Your task to perform on an android device: toggle show notifications on the lock screen Image 0: 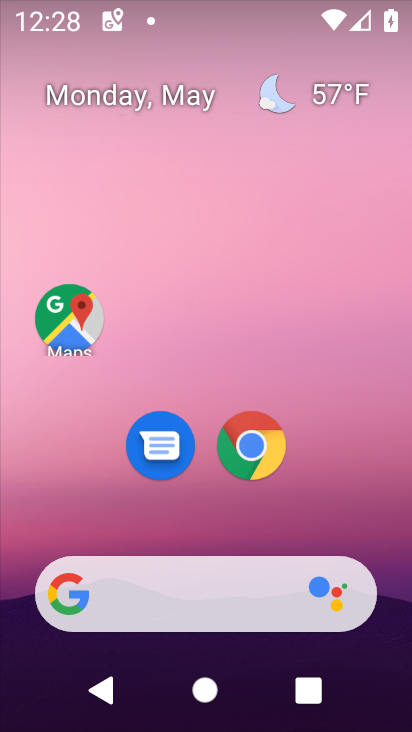
Step 0: drag from (342, 498) to (289, 141)
Your task to perform on an android device: toggle show notifications on the lock screen Image 1: 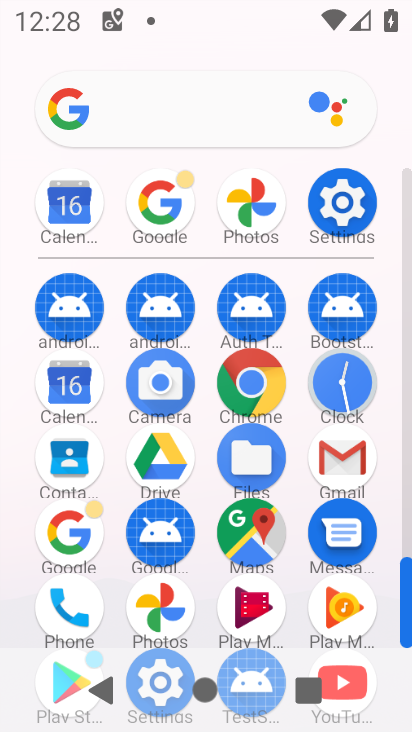
Step 1: click (341, 221)
Your task to perform on an android device: toggle show notifications on the lock screen Image 2: 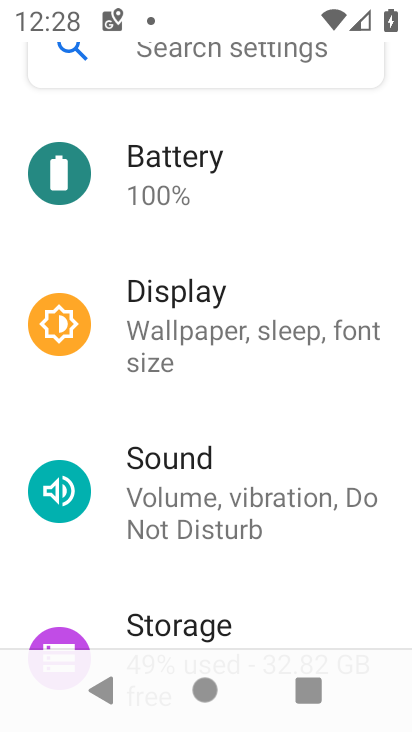
Step 2: drag from (274, 410) to (252, 159)
Your task to perform on an android device: toggle show notifications on the lock screen Image 3: 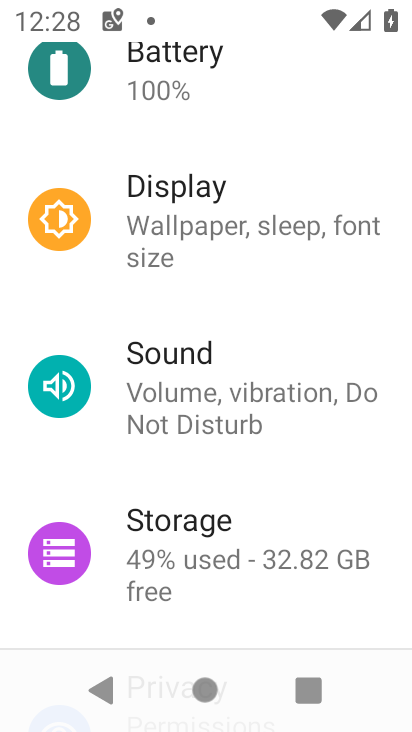
Step 3: drag from (289, 483) to (257, 163)
Your task to perform on an android device: toggle show notifications on the lock screen Image 4: 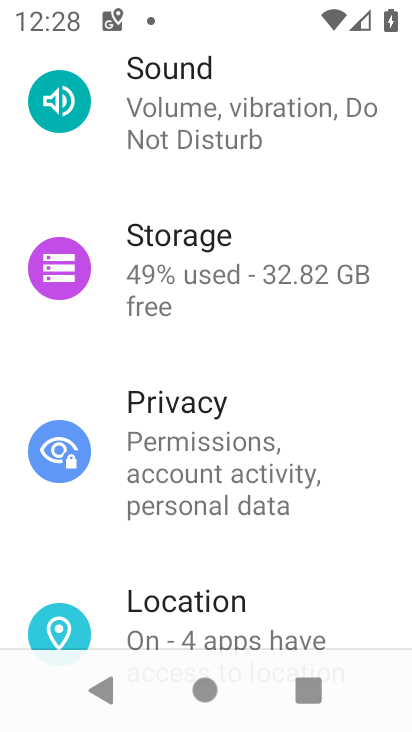
Step 4: drag from (271, 108) to (307, 396)
Your task to perform on an android device: toggle show notifications on the lock screen Image 5: 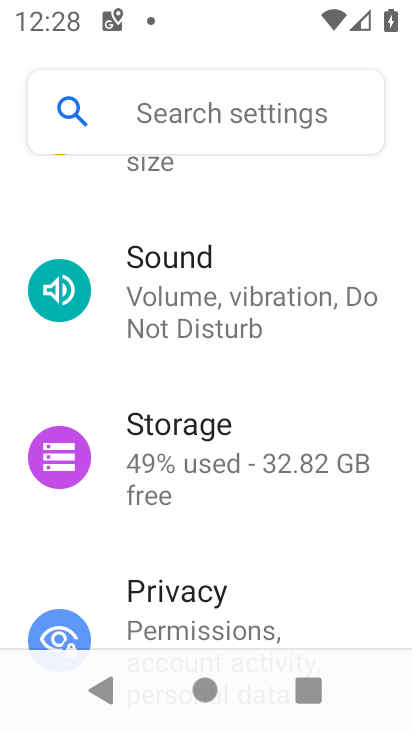
Step 5: drag from (332, 227) to (334, 447)
Your task to perform on an android device: toggle show notifications on the lock screen Image 6: 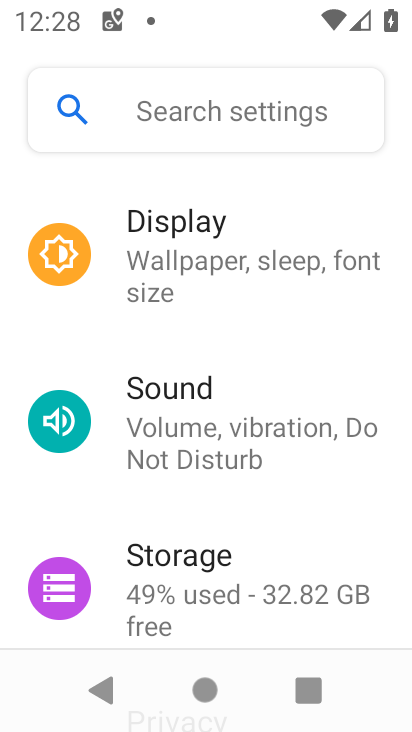
Step 6: drag from (262, 238) to (291, 481)
Your task to perform on an android device: toggle show notifications on the lock screen Image 7: 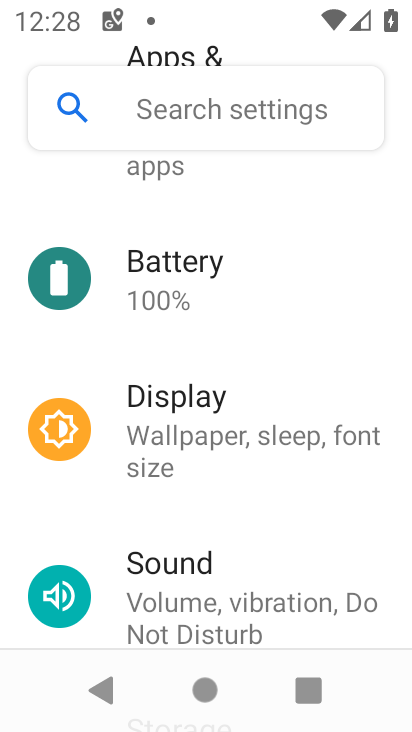
Step 7: click (170, 430)
Your task to perform on an android device: toggle show notifications on the lock screen Image 8: 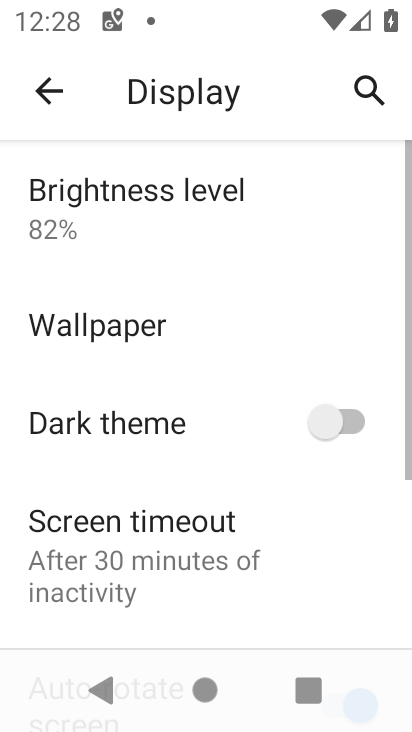
Step 8: drag from (164, 474) to (181, 180)
Your task to perform on an android device: toggle show notifications on the lock screen Image 9: 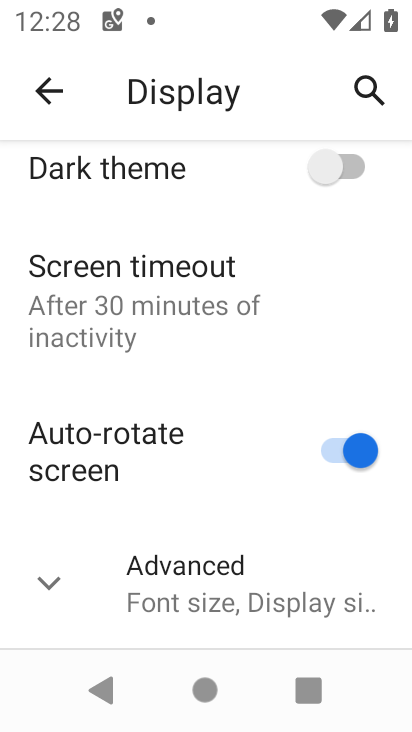
Step 9: drag from (209, 467) to (219, 163)
Your task to perform on an android device: toggle show notifications on the lock screen Image 10: 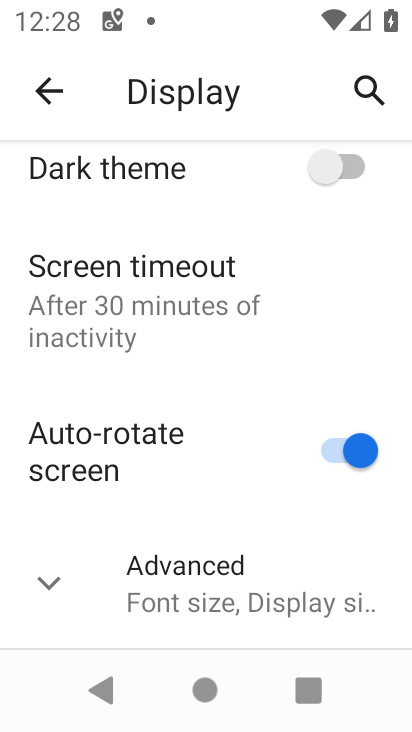
Step 10: click (214, 597)
Your task to perform on an android device: toggle show notifications on the lock screen Image 11: 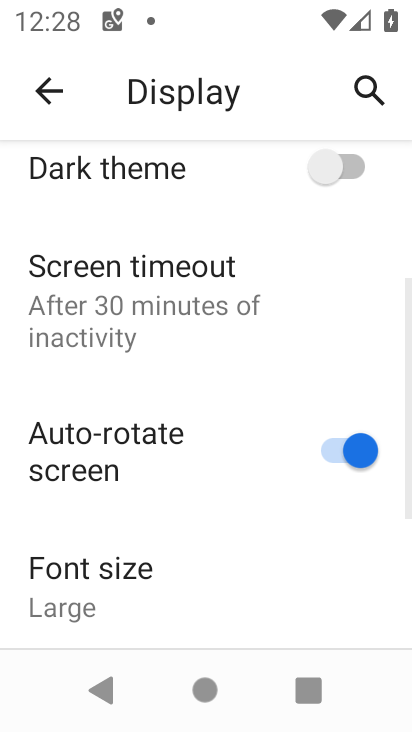
Step 11: drag from (206, 598) to (223, 328)
Your task to perform on an android device: toggle show notifications on the lock screen Image 12: 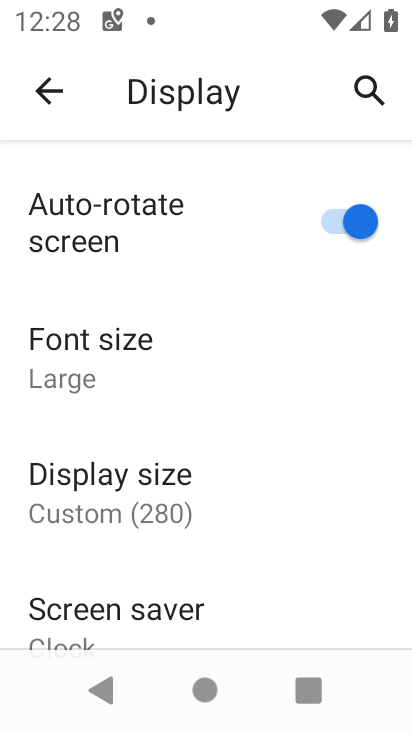
Step 12: drag from (227, 553) to (209, 251)
Your task to perform on an android device: toggle show notifications on the lock screen Image 13: 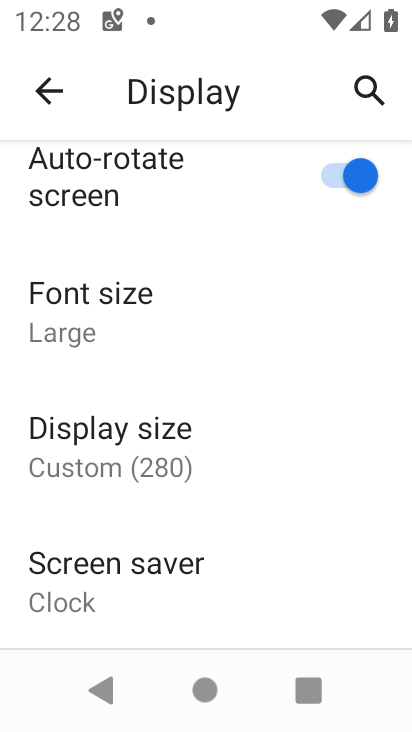
Step 13: drag from (193, 269) to (248, 585)
Your task to perform on an android device: toggle show notifications on the lock screen Image 14: 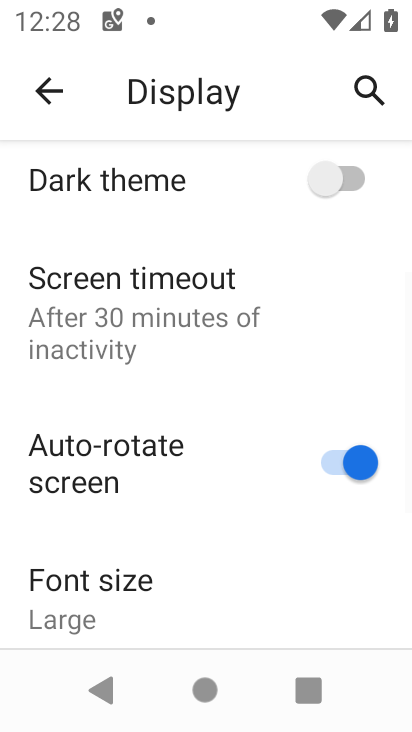
Step 14: drag from (241, 210) to (193, 488)
Your task to perform on an android device: toggle show notifications on the lock screen Image 15: 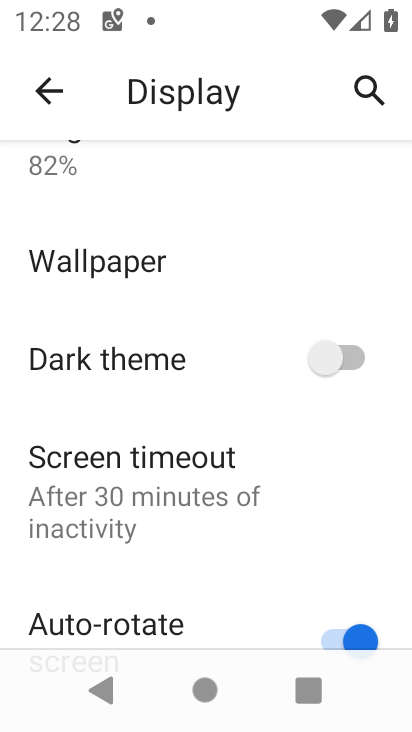
Step 15: press back button
Your task to perform on an android device: toggle show notifications on the lock screen Image 16: 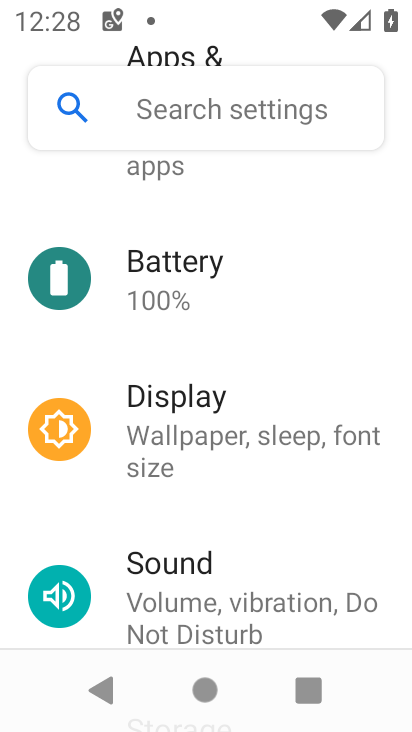
Step 16: drag from (254, 268) to (263, 477)
Your task to perform on an android device: toggle show notifications on the lock screen Image 17: 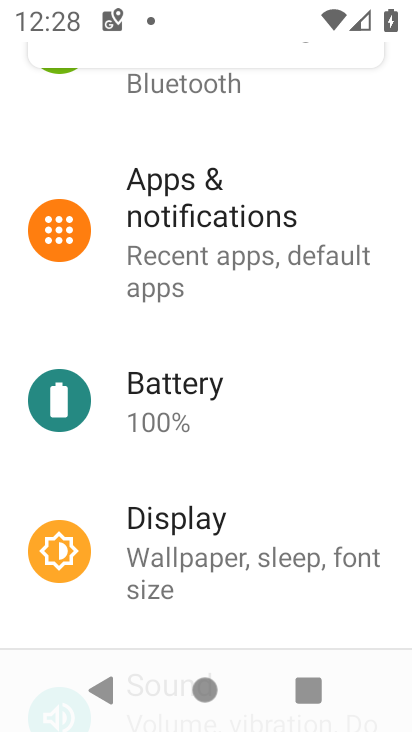
Step 17: drag from (302, 471) to (299, 118)
Your task to perform on an android device: toggle show notifications on the lock screen Image 18: 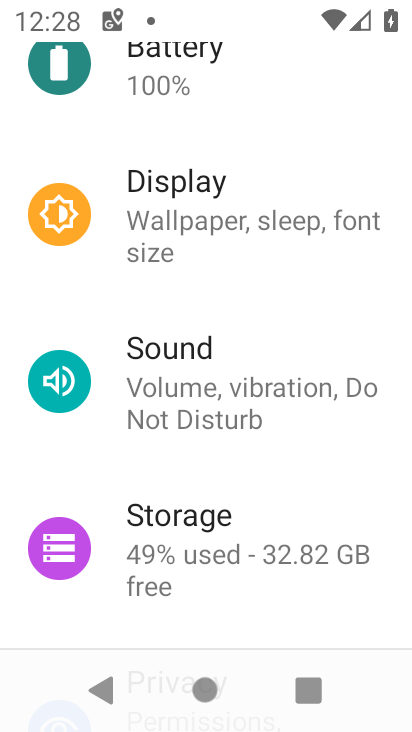
Step 18: click (270, 366)
Your task to perform on an android device: toggle show notifications on the lock screen Image 19: 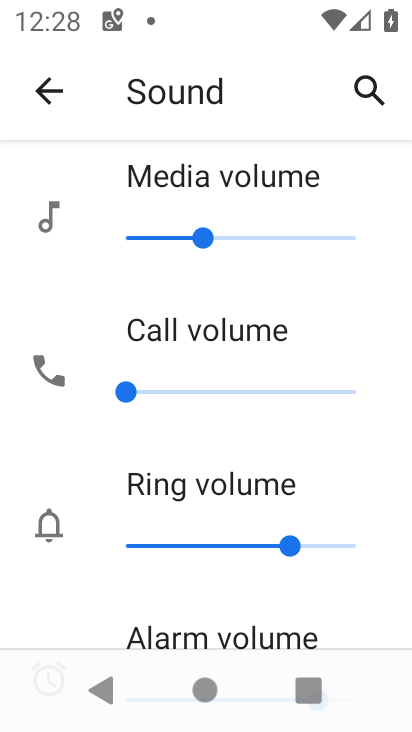
Step 19: drag from (308, 584) to (318, 134)
Your task to perform on an android device: toggle show notifications on the lock screen Image 20: 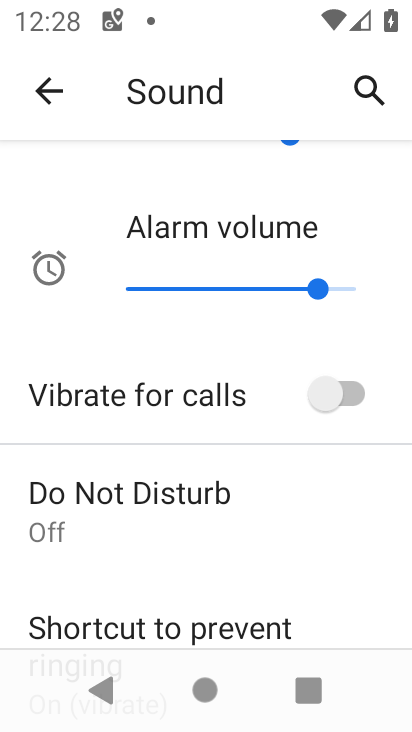
Step 20: drag from (262, 547) to (287, 73)
Your task to perform on an android device: toggle show notifications on the lock screen Image 21: 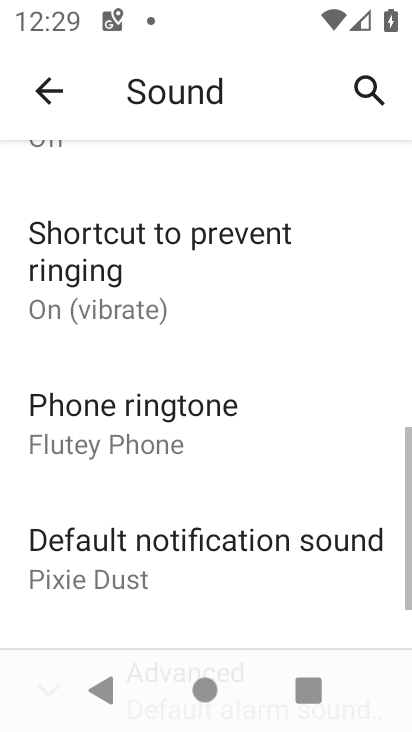
Step 21: drag from (252, 340) to (257, 80)
Your task to perform on an android device: toggle show notifications on the lock screen Image 22: 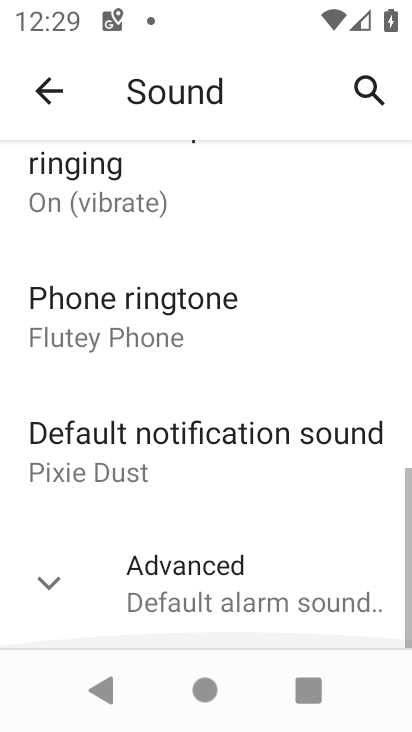
Step 22: click (273, 553)
Your task to perform on an android device: toggle show notifications on the lock screen Image 23: 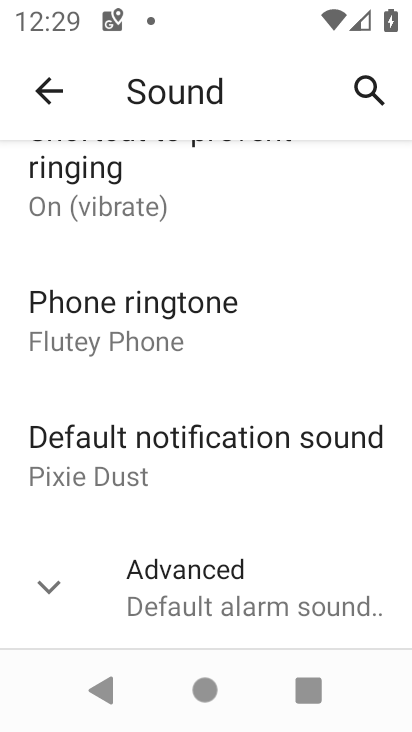
Step 23: press back button
Your task to perform on an android device: toggle show notifications on the lock screen Image 24: 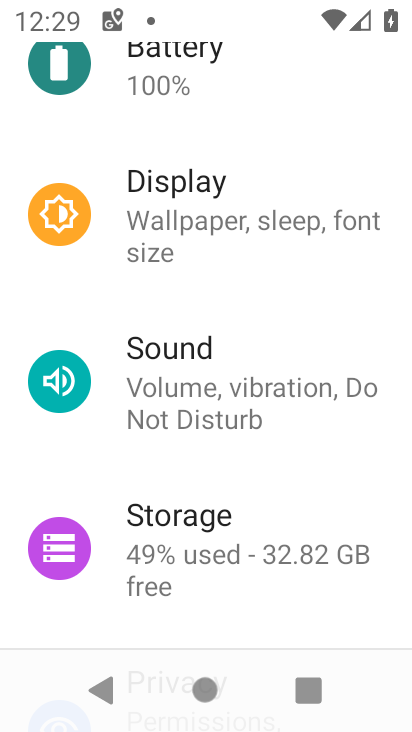
Step 24: drag from (354, 445) to (359, 35)
Your task to perform on an android device: toggle show notifications on the lock screen Image 25: 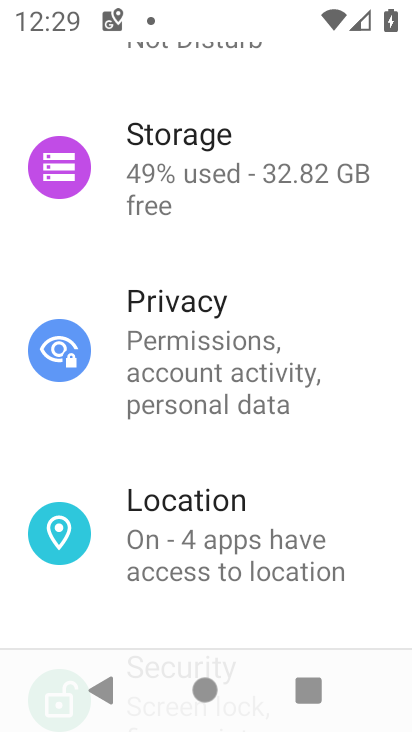
Step 25: drag from (258, 557) to (301, 118)
Your task to perform on an android device: toggle show notifications on the lock screen Image 26: 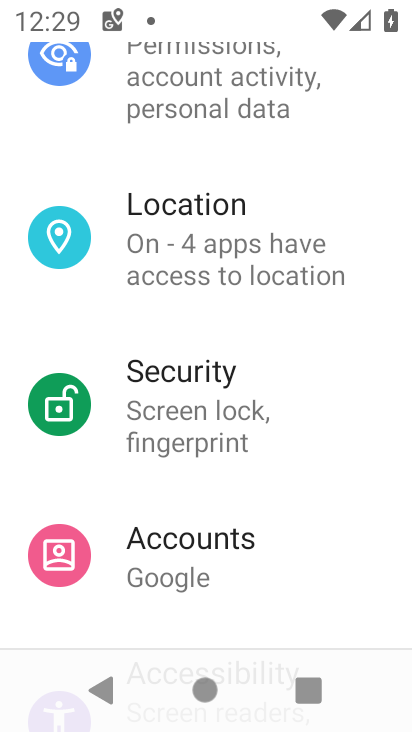
Step 26: drag from (289, 565) to (319, 200)
Your task to perform on an android device: toggle show notifications on the lock screen Image 27: 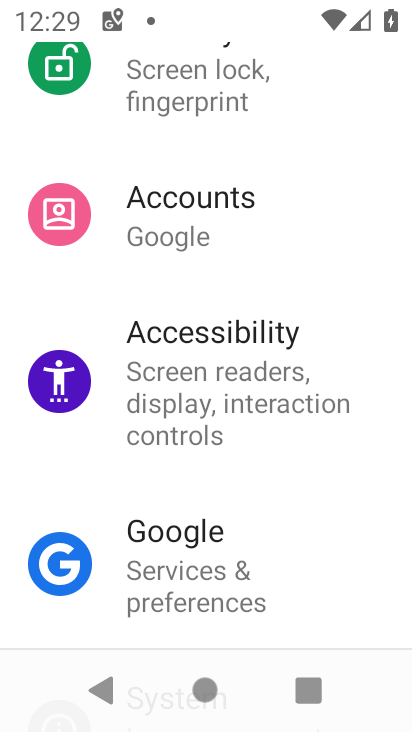
Step 27: drag from (281, 529) to (273, 185)
Your task to perform on an android device: toggle show notifications on the lock screen Image 28: 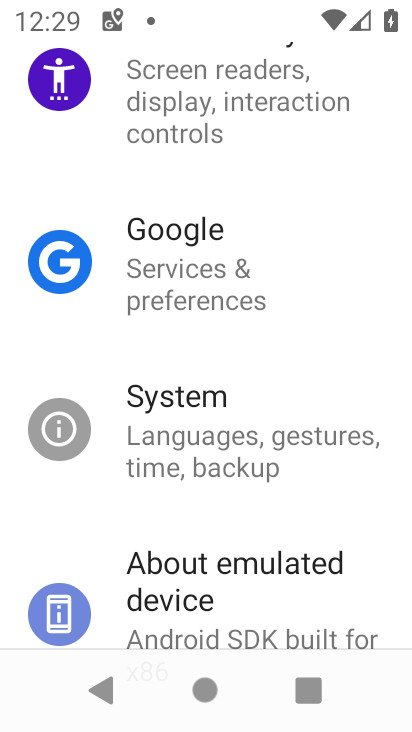
Step 28: drag from (262, 549) to (276, 130)
Your task to perform on an android device: toggle show notifications on the lock screen Image 29: 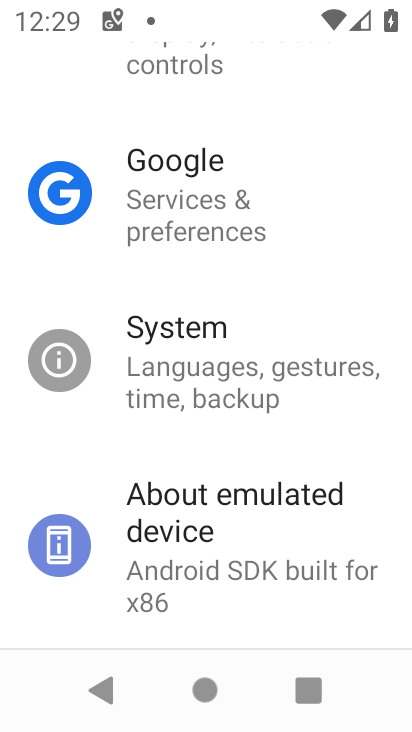
Step 29: drag from (247, 615) to (250, 329)
Your task to perform on an android device: toggle show notifications on the lock screen Image 30: 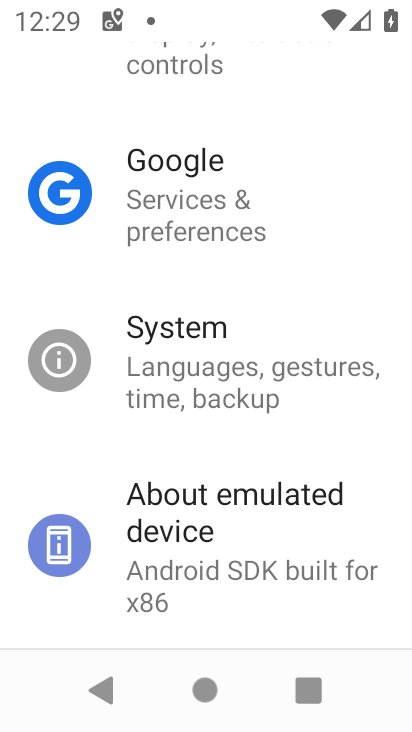
Step 30: click (274, 525)
Your task to perform on an android device: toggle show notifications on the lock screen Image 31: 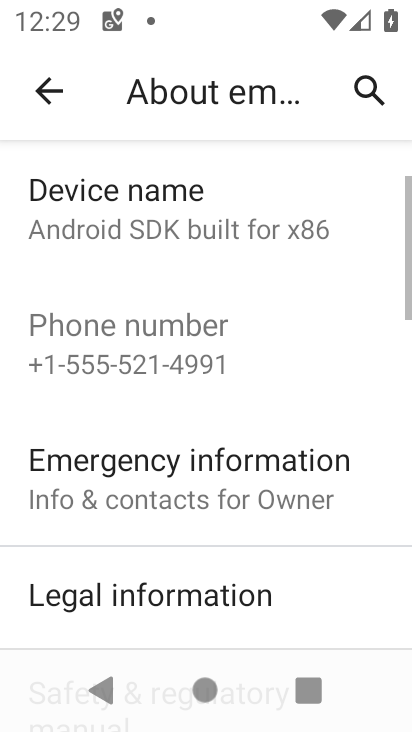
Step 31: task complete